Your task to perform on an android device: open chrome privacy settings Image 0: 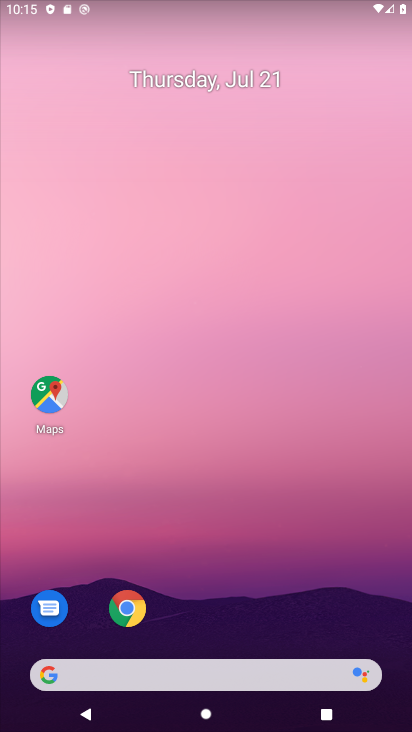
Step 0: click (132, 610)
Your task to perform on an android device: open chrome privacy settings Image 1: 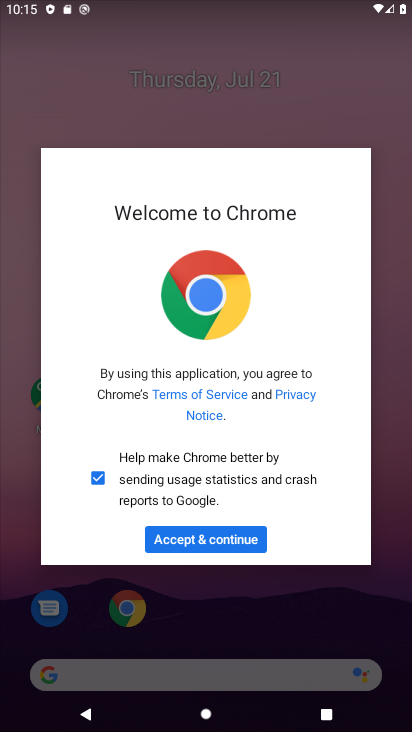
Step 1: click (188, 544)
Your task to perform on an android device: open chrome privacy settings Image 2: 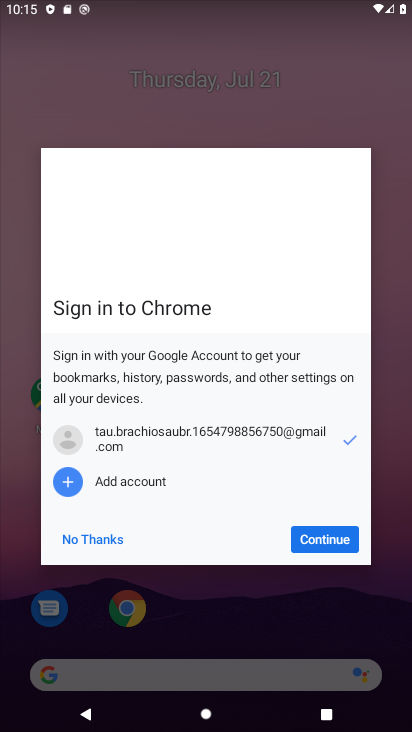
Step 2: click (345, 545)
Your task to perform on an android device: open chrome privacy settings Image 3: 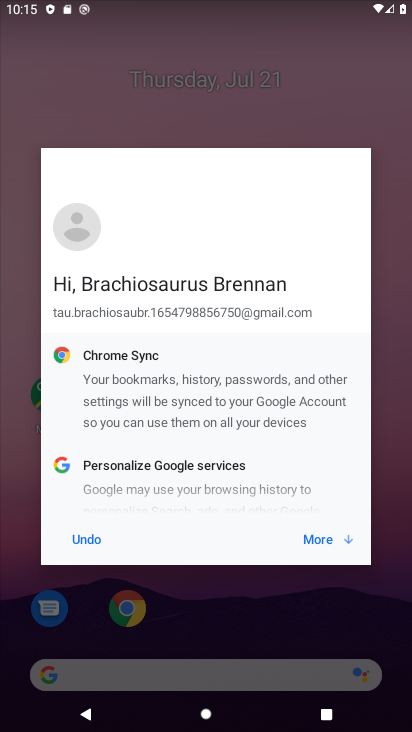
Step 3: click (318, 542)
Your task to perform on an android device: open chrome privacy settings Image 4: 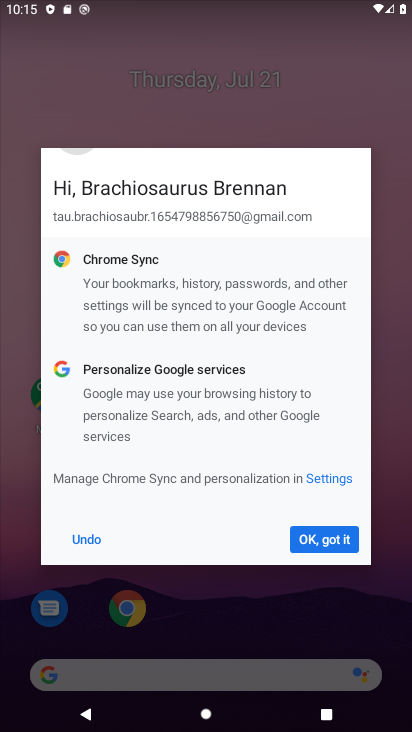
Step 4: click (318, 531)
Your task to perform on an android device: open chrome privacy settings Image 5: 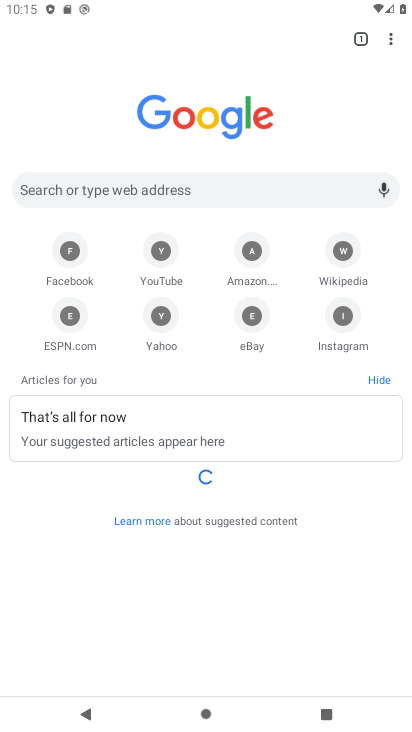
Step 5: click (388, 47)
Your task to perform on an android device: open chrome privacy settings Image 6: 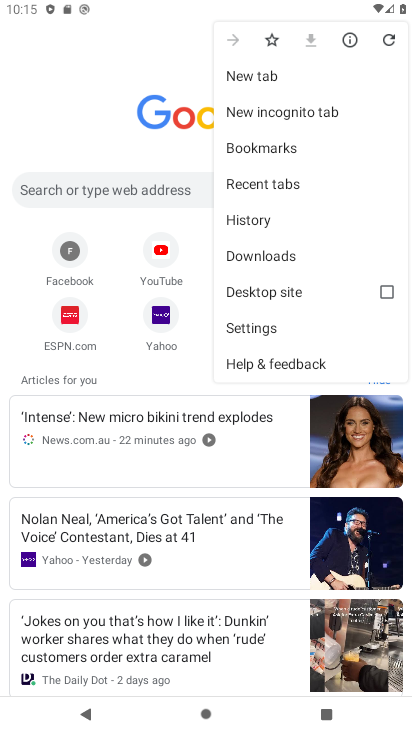
Step 6: click (251, 330)
Your task to perform on an android device: open chrome privacy settings Image 7: 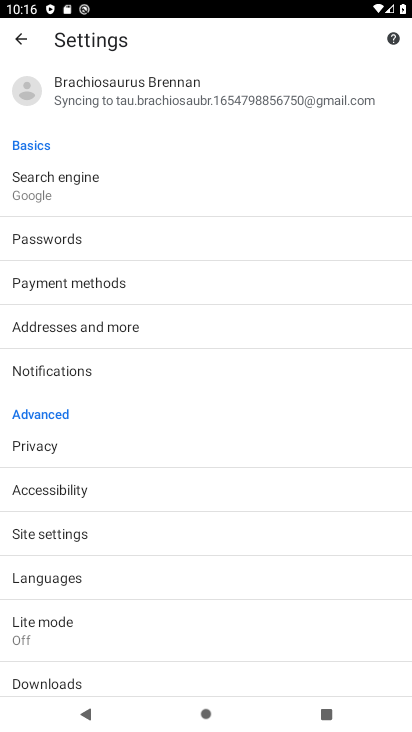
Step 7: click (44, 449)
Your task to perform on an android device: open chrome privacy settings Image 8: 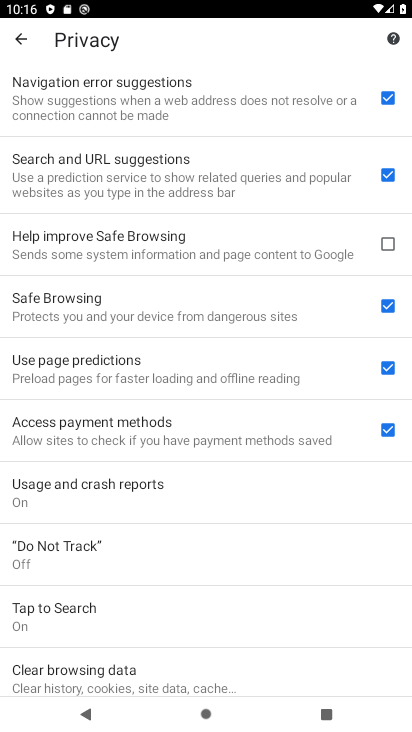
Step 8: task complete